Your task to perform on an android device: check the backup settings in the google photos Image 0: 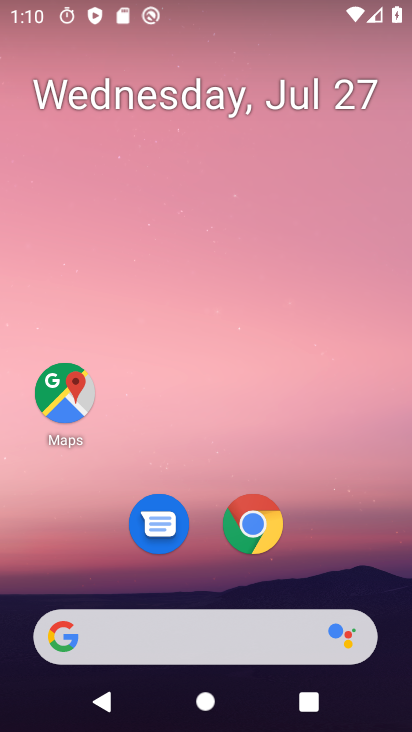
Step 0: drag from (303, 491) to (240, 0)
Your task to perform on an android device: check the backup settings in the google photos Image 1: 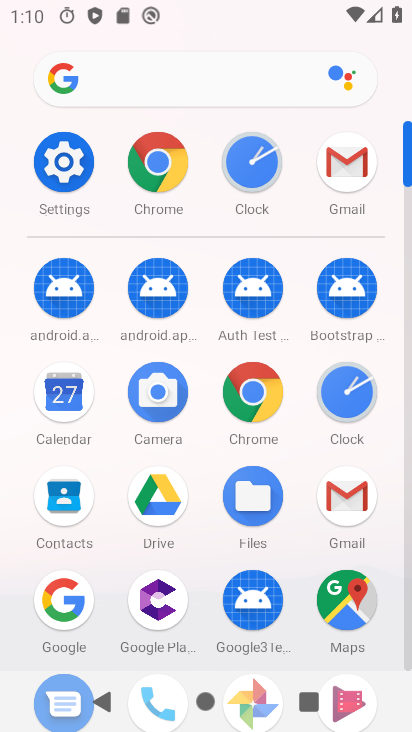
Step 1: drag from (300, 551) to (293, 420)
Your task to perform on an android device: check the backup settings in the google photos Image 2: 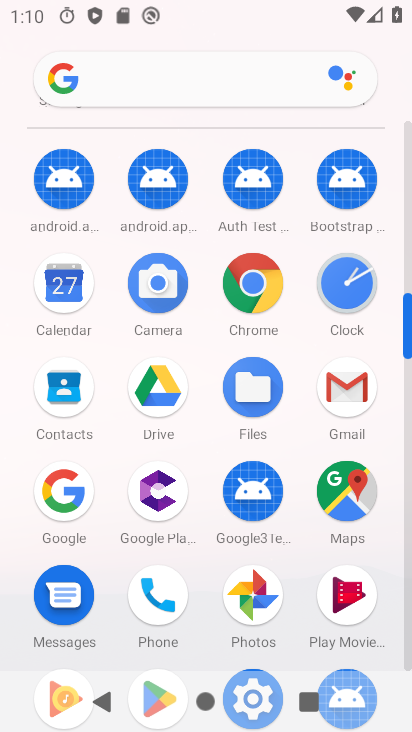
Step 2: click (264, 587)
Your task to perform on an android device: check the backup settings in the google photos Image 3: 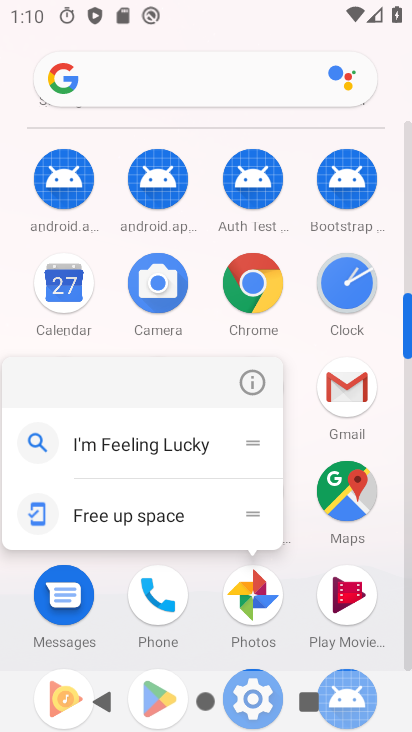
Step 3: click (252, 592)
Your task to perform on an android device: check the backup settings in the google photos Image 4: 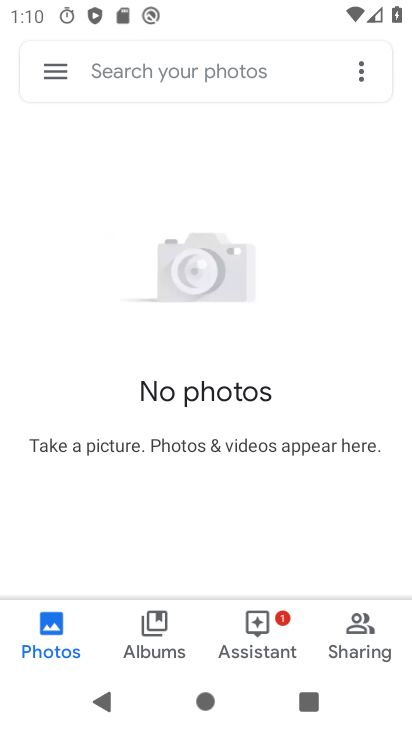
Step 4: click (53, 70)
Your task to perform on an android device: check the backup settings in the google photos Image 5: 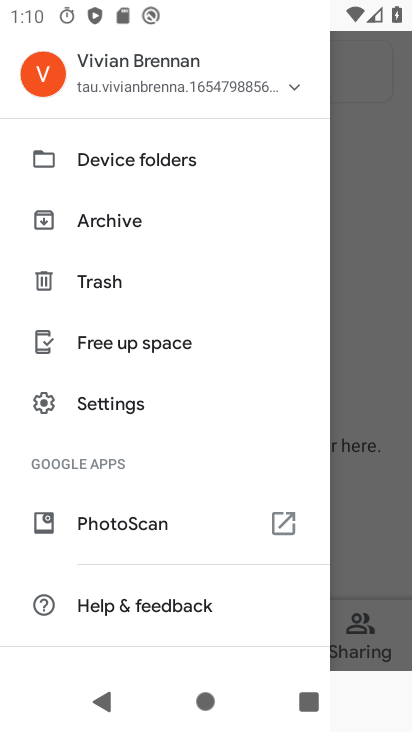
Step 5: click (75, 411)
Your task to perform on an android device: check the backup settings in the google photos Image 6: 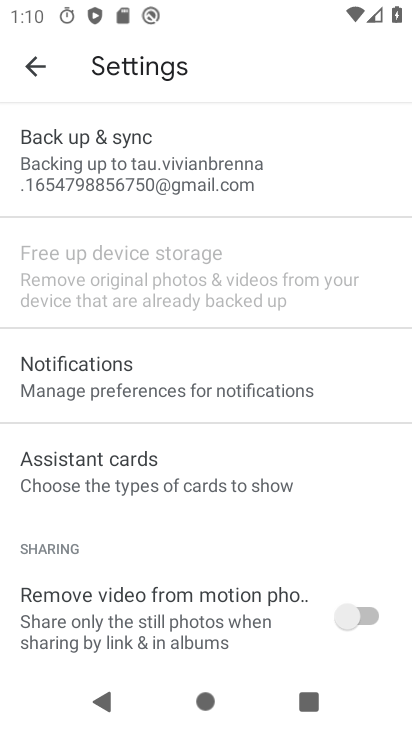
Step 6: click (130, 169)
Your task to perform on an android device: check the backup settings in the google photos Image 7: 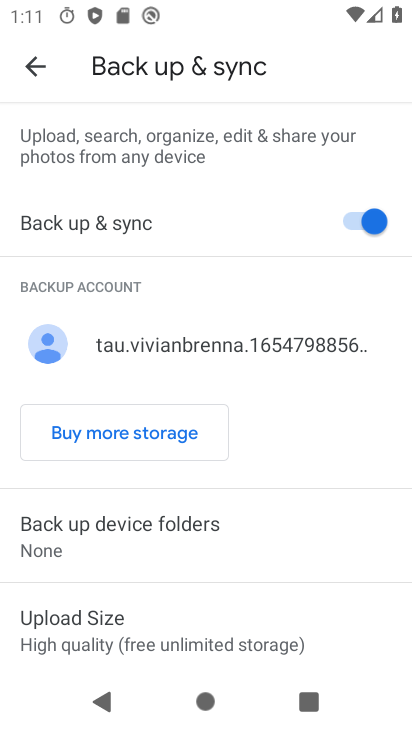
Step 7: task complete